Your task to perform on an android device: Open the web browser Image 0: 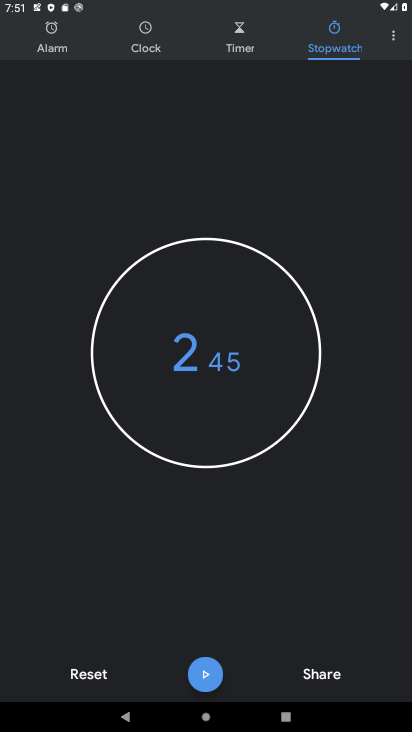
Step 0: press home button
Your task to perform on an android device: Open the web browser Image 1: 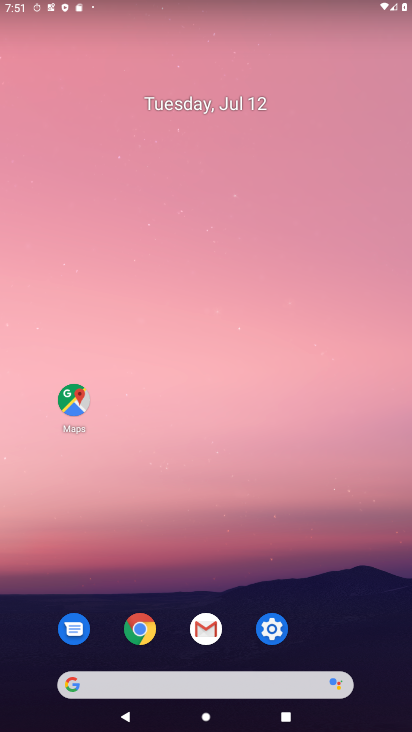
Step 1: click (146, 638)
Your task to perform on an android device: Open the web browser Image 2: 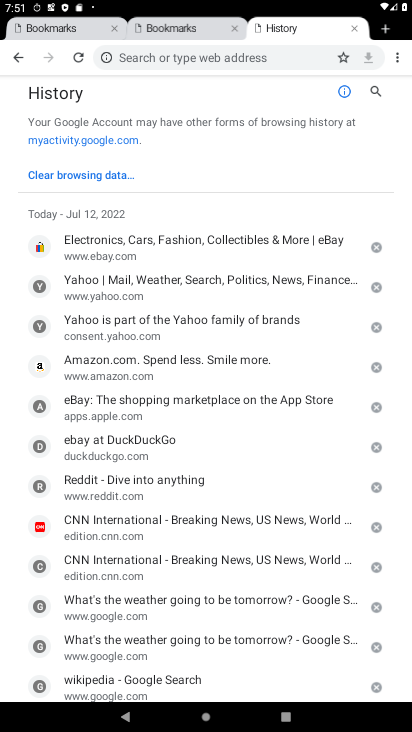
Step 2: click (259, 55)
Your task to perform on an android device: Open the web browser Image 3: 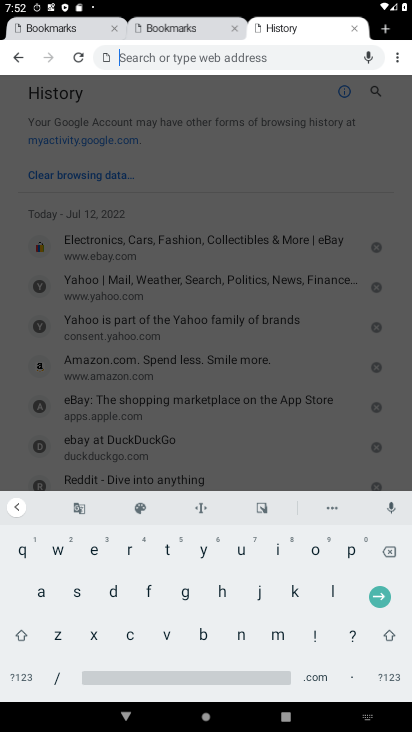
Step 3: task complete